Your task to perform on an android device: When is my next appointment? Image 0: 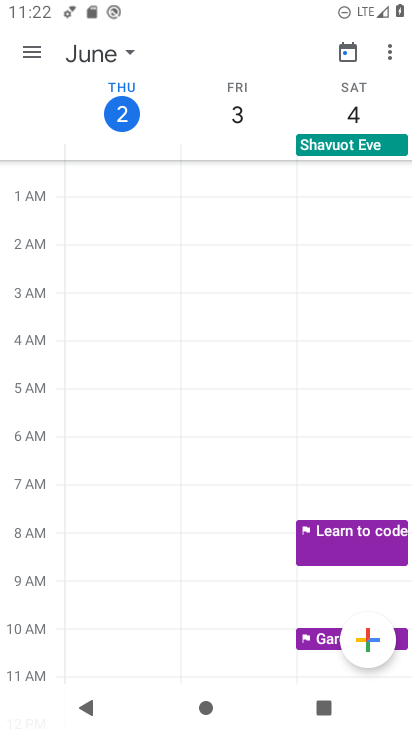
Step 0: press home button
Your task to perform on an android device: When is my next appointment? Image 1: 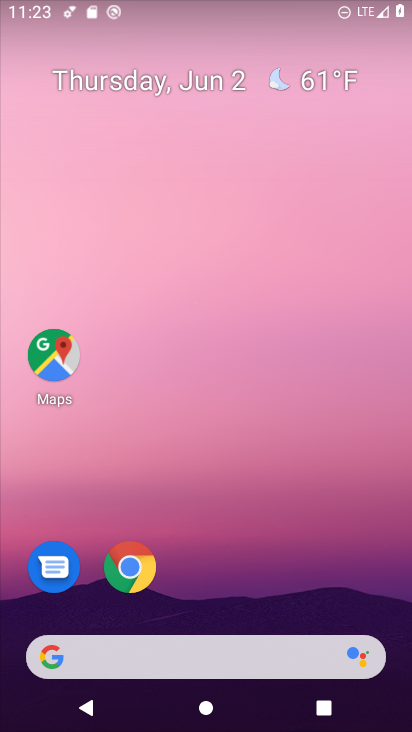
Step 1: drag from (255, 525) to (265, 136)
Your task to perform on an android device: When is my next appointment? Image 2: 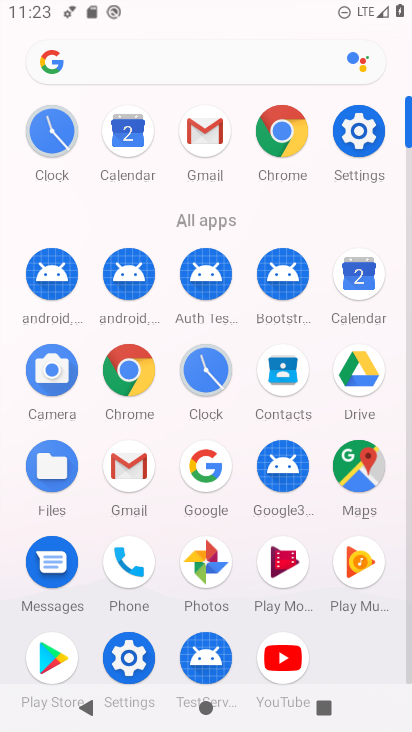
Step 2: click (357, 283)
Your task to perform on an android device: When is my next appointment? Image 3: 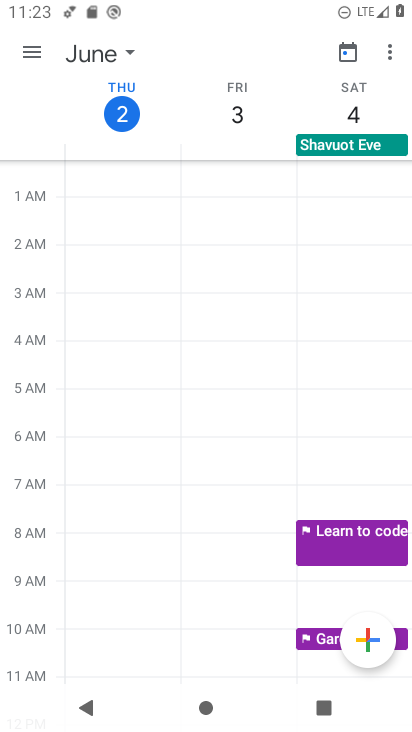
Step 3: task complete